Your task to perform on an android device: Search for Mexican restaurants on Maps Image 0: 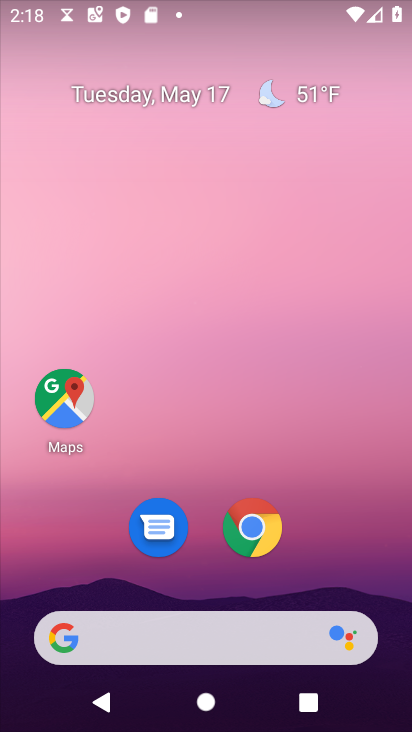
Step 0: click (62, 402)
Your task to perform on an android device: Search for Mexican restaurants on Maps Image 1: 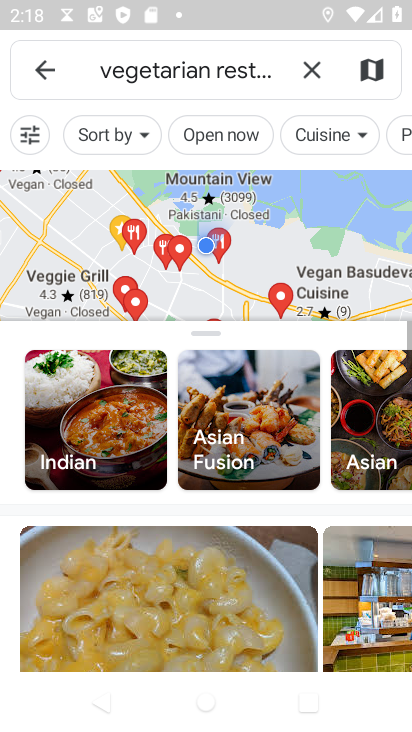
Step 1: click (311, 65)
Your task to perform on an android device: Search for Mexican restaurants on Maps Image 2: 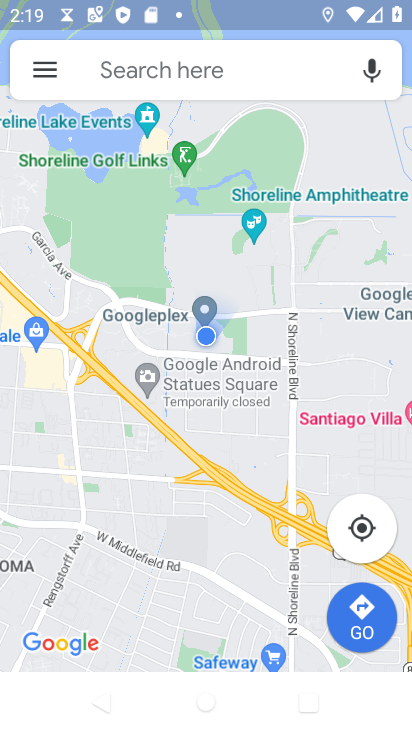
Step 2: type "Mexican restaurants"
Your task to perform on an android device: Search for Mexican restaurants on Maps Image 3: 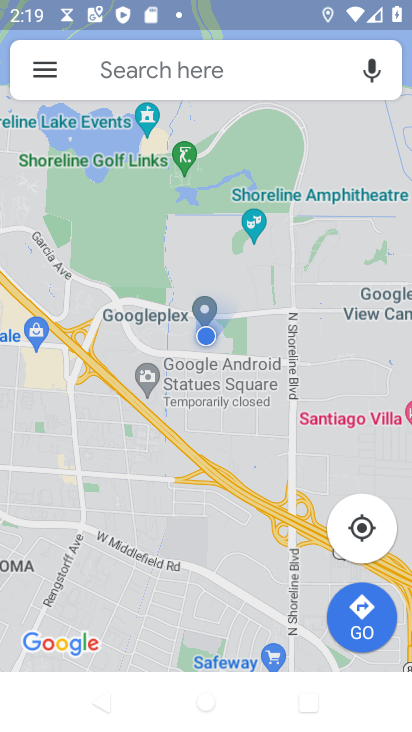
Step 3: click (240, 63)
Your task to perform on an android device: Search for Mexican restaurants on Maps Image 4: 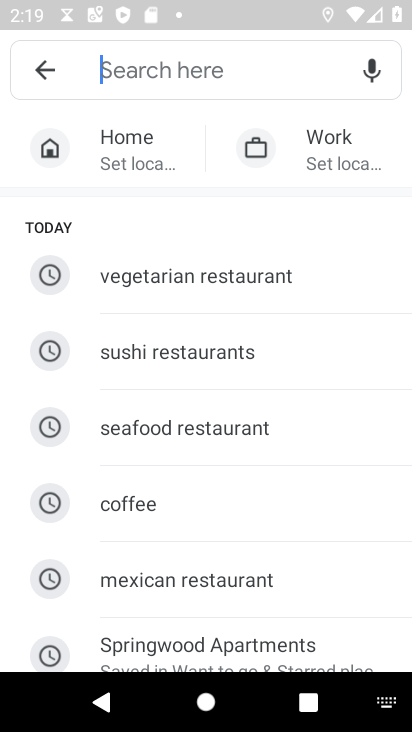
Step 4: type "mexican restaurants"
Your task to perform on an android device: Search for Mexican restaurants on Maps Image 5: 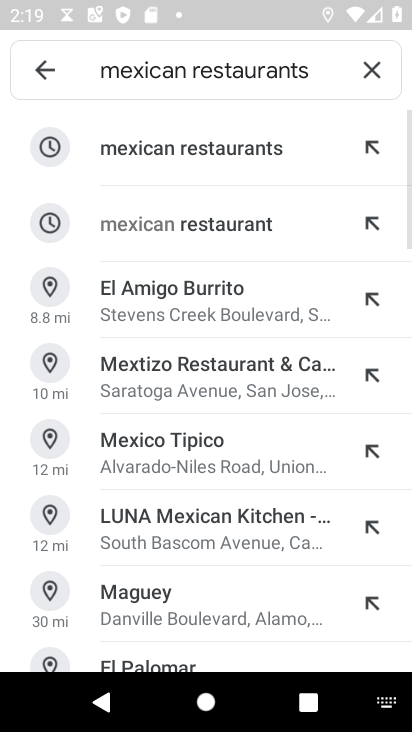
Step 5: click (205, 152)
Your task to perform on an android device: Search for Mexican restaurants on Maps Image 6: 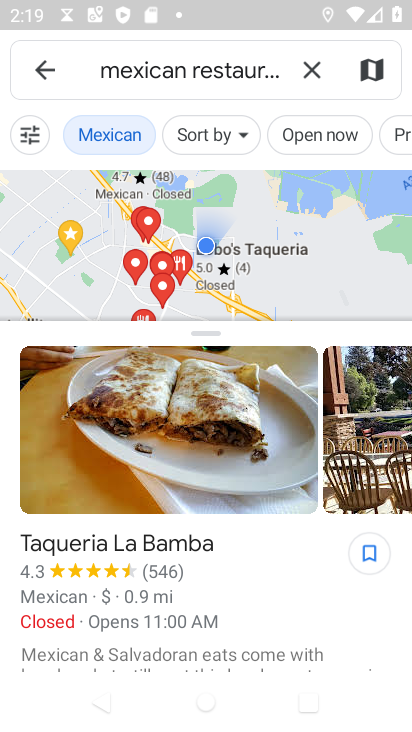
Step 6: task complete